Your task to perform on an android device: open app "TextNow: Call + Text Unlimited" (install if not already installed) and go to login screen Image 0: 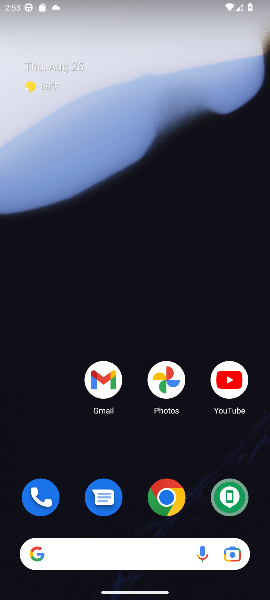
Step 0: drag from (154, 509) to (146, 58)
Your task to perform on an android device: open app "TextNow: Call + Text Unlimited" (install if not already installed) and go to login screen Image 1: 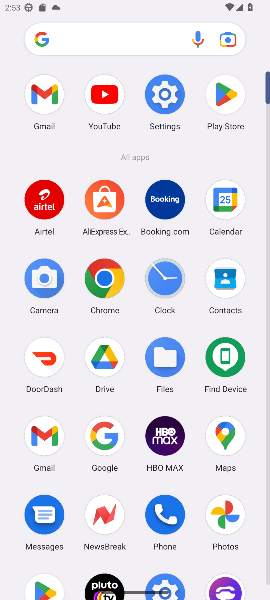
Step 1: click (226, 94)
Your task to perform on an android device: open app "TextNow: Call + Text Unlimited" (install if not already installed) and go to login screen Image 2: 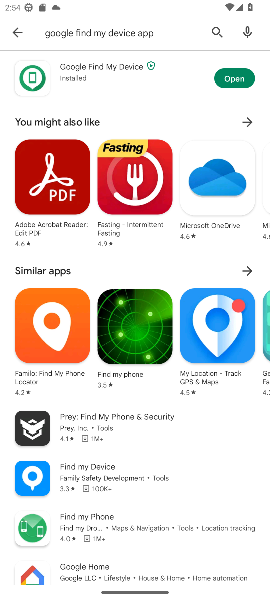
Step 2: click (12, 29)
Your task to perform on an android device: open app "TextNow: Call + Text Unlimited" (install if not already installed) and go to login screen Image 3: 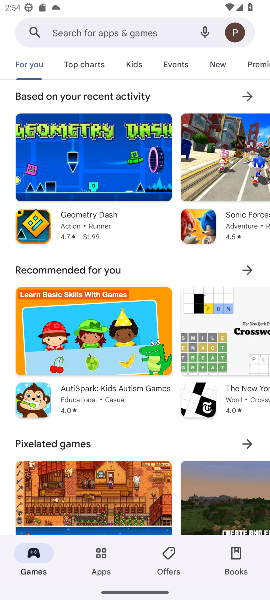
Step 3: click (134, 37)
Your task to perform on an android device: open app "TextNow: Call + Text Unlimited" (install if not already installed) and go to login screen Image 4: 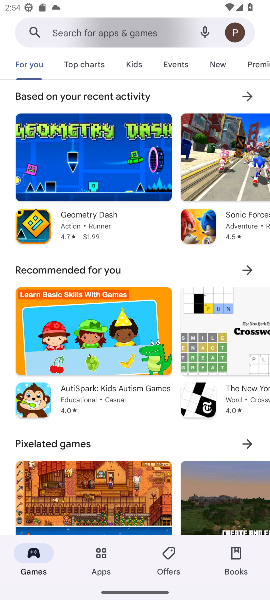
Step 4: click (137, 26)
Your task to perform on an android device: open app "TextNow: Call + Text Unlimited" (install if not already installed) and go to login screen Image 5: 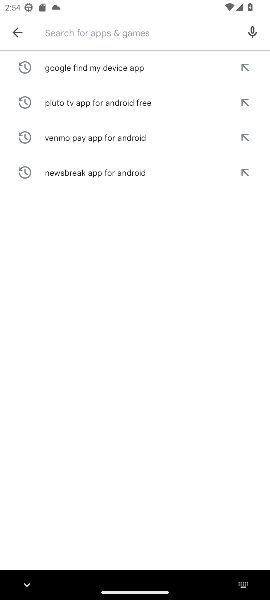
Step 5: type "TextNow: Call + Text Unlimited "
Your task to perform on an android device: open app "TextNow: Call + Text Unlimited" (install if not already installed) and go to login screen Image 6: 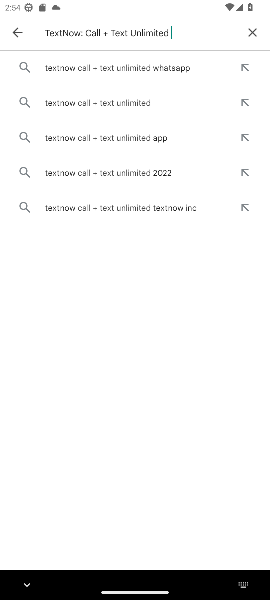
Step 6: click (156, 74)
Your task to perform on an android device: open app "TextNow: Call + Text Unlimited" (install if not already installed) and go to login screen Image 7: 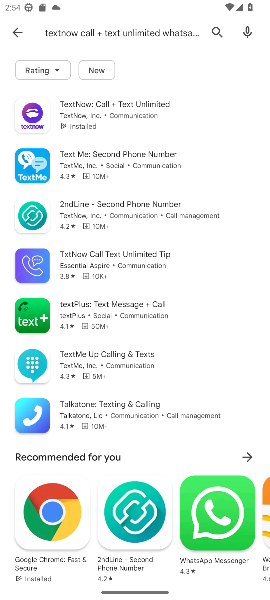
Step 7: click (105, 117)
Your task to perform on an android device: open app "TextNow: Call + Text Unlimited" (install if not already installed) and go to login screen Image 8: 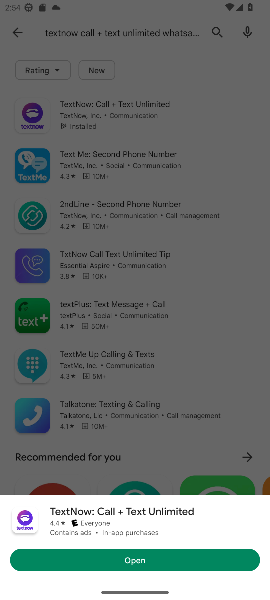
Step 8: click (181, 554)
Your task to perform on an android device: open app "TextNow: Call + Text Unlimited" (install if not already installed) and go to login screen Image 9: 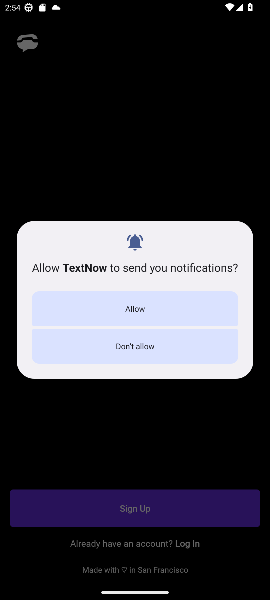
Step 9: click (148, 301)
Your task to perform on an android device: open app "TextNow: Call + Text Unlimited" (install if not already installed) and go to login screen Image 10: 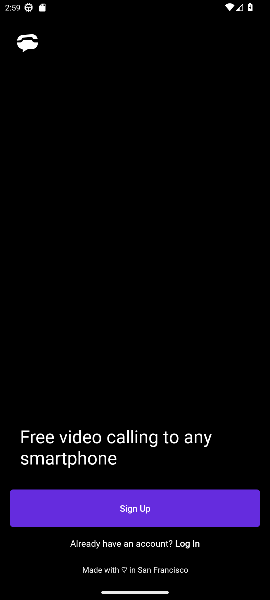
Step 10: task complete